Your task to perform on an android device: turn off sleep mode Image 0: 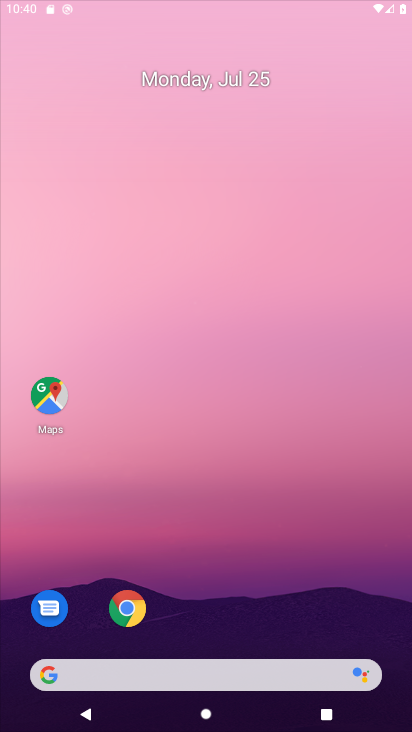
Step 0: drag from (239, 169) to (239, 84)
Your task to perform on an android device: turn off sleep mode Image 1: 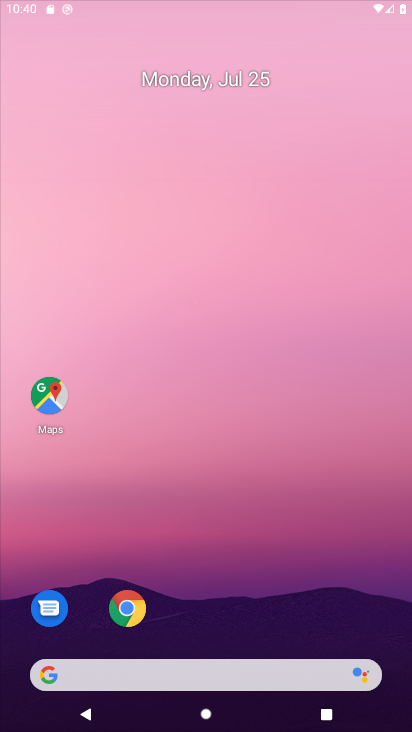
Step 1: drag from (300, 514) to (276, 162)
Your task to perform on an android device: turn off sleep mode Image 2: 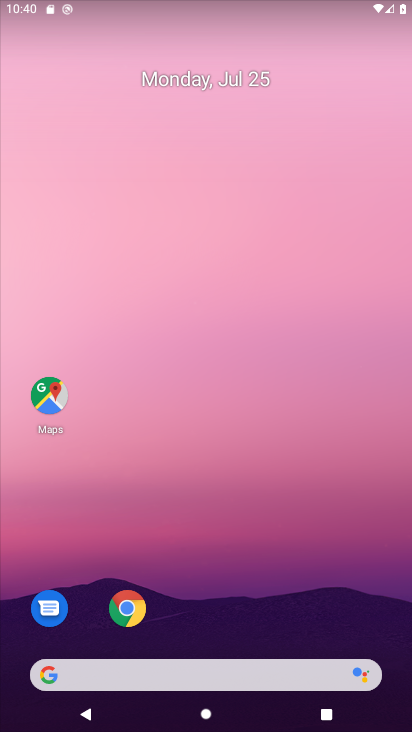
Step 2: drag from (253, 675) to (148, 163)
Your task to perform on an android device: turn off sleep mode Image 3: 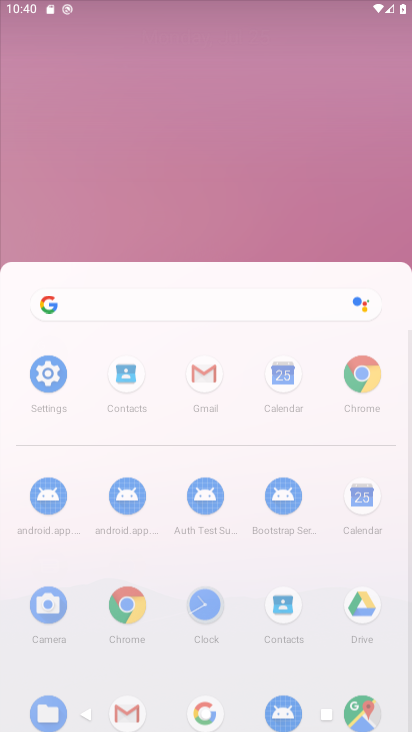
Step 3: drag from (311, 500) to (269, 176)
Your task to perform on an android device: turn off sleep mode Image 4: 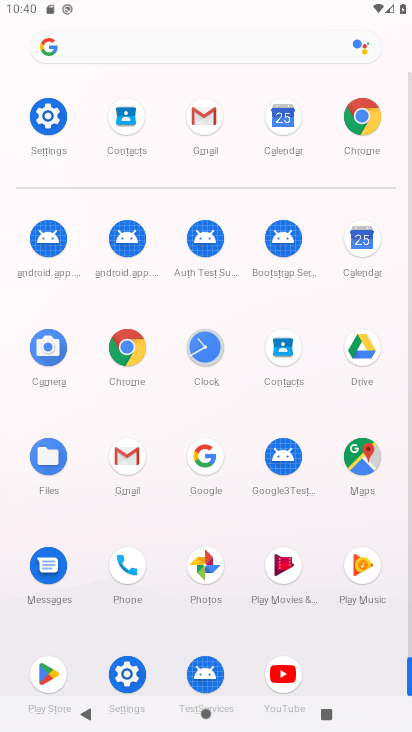
Step 4: click (40, 114)
Your task to perform on an android device: turn off sleep mode Image 5: 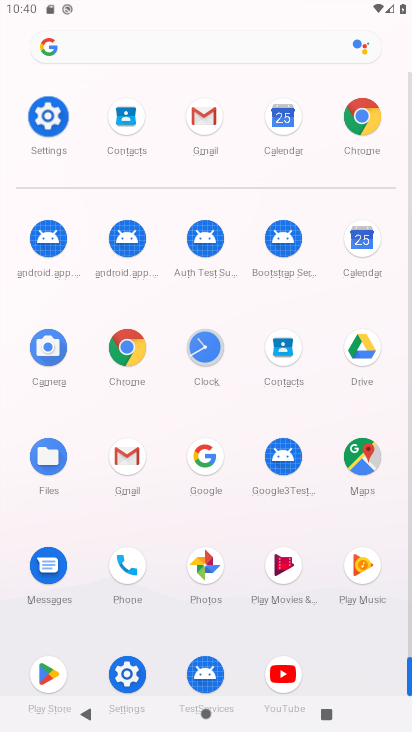
Step 5: click (40, 114)
Your task to perform on an android device: turn off sleep mode Image 6: 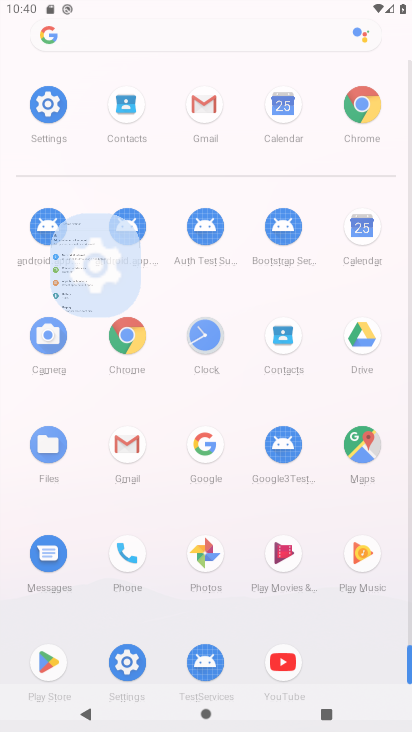
Step 6: click (40, 114)
Your task to perform on an android device: turn off sleep mode Image 7: 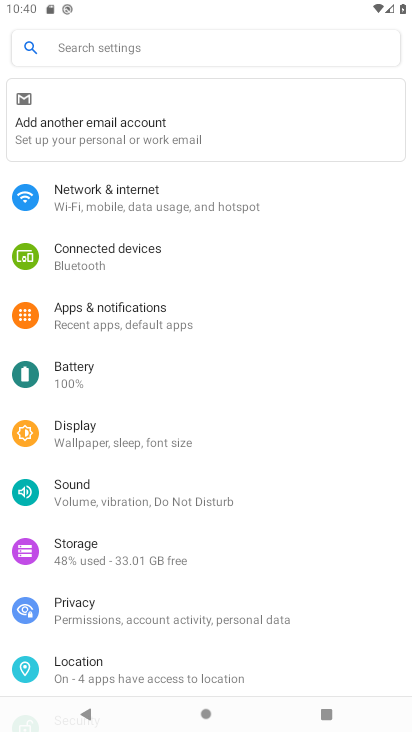
Step 7: click (72, 436)
Your task to perform on an android device: turn off sleep mode Image 8: 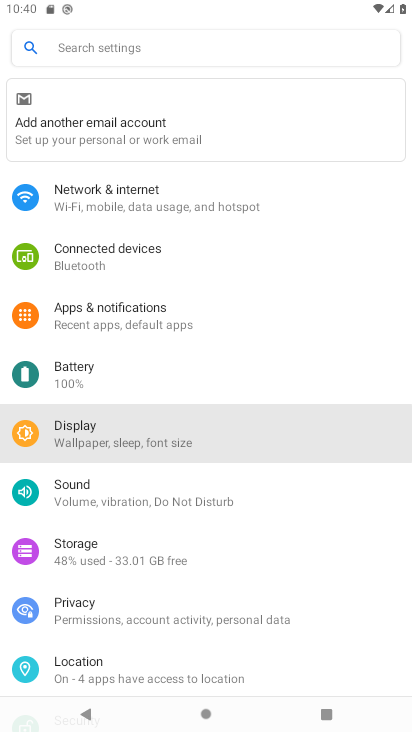
Step 8: click (72, 436)
Your task to perform on an android device: turn off sleep mode Image 9: 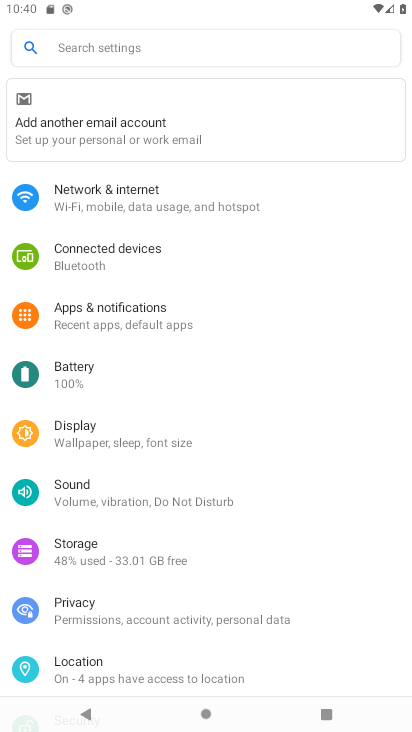
Step 9: click (73, 431)
Your task to perform on an android device: turn off sleep mode Image 10: 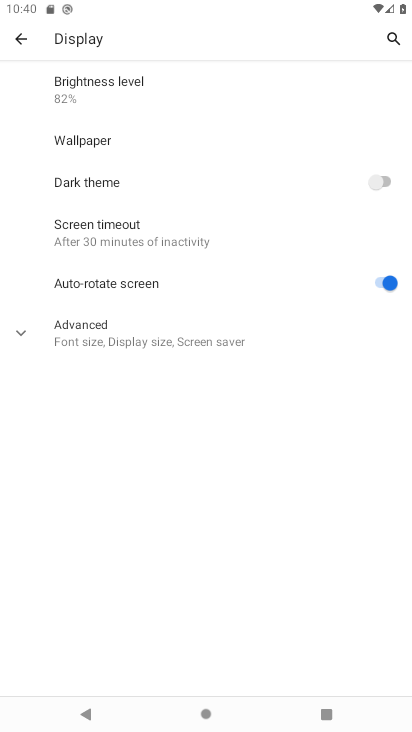
Step 10: click (91, 323)
Your task to perform on an android device: turn off sleep mode Image 11: 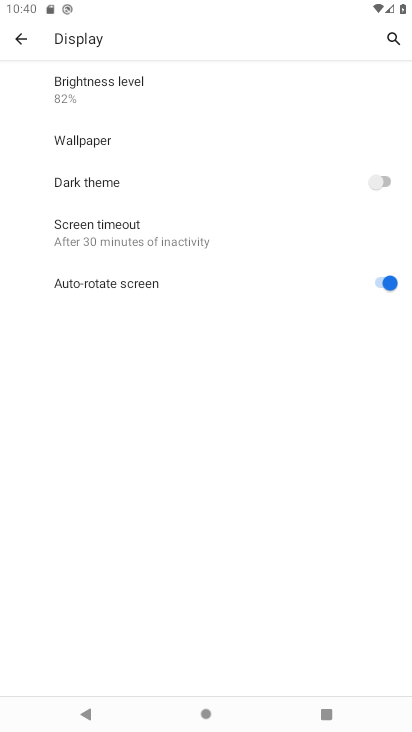
Step 11: click (90, 321)
Your task to perform on an android device: turn off sleep mode Image 12: 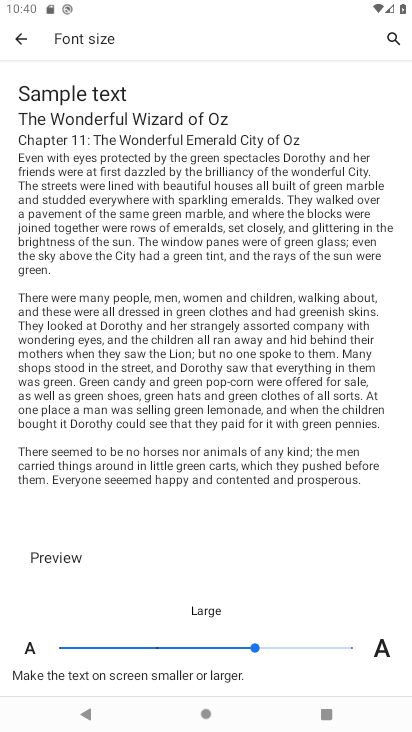
Step 12: click (343, 651)
Your task to perform on an android device: turn off sleep mode Image 13: 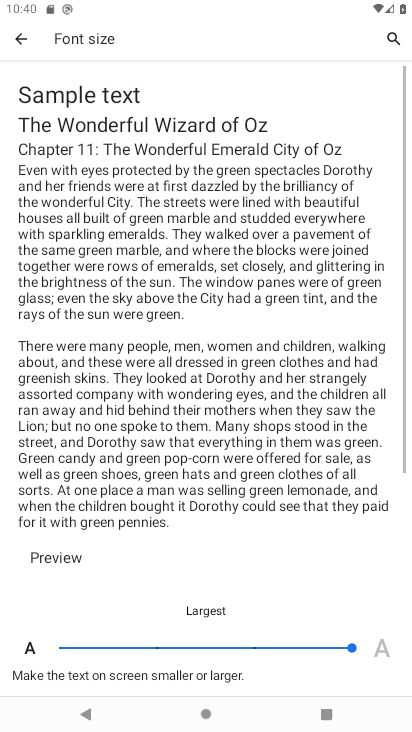
Step 13: click (10, 39)
Your task to perform on an android device: turn off sleep mode Image 14: 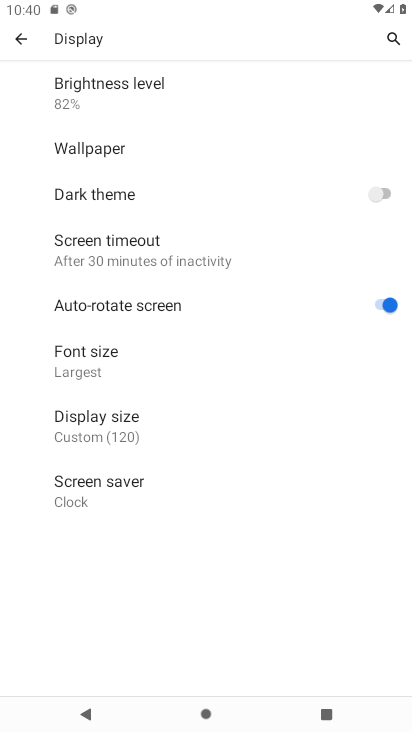
Step 14: click (94, 483)
Your task to perform on an android device: turn off sleep mode Image 15: 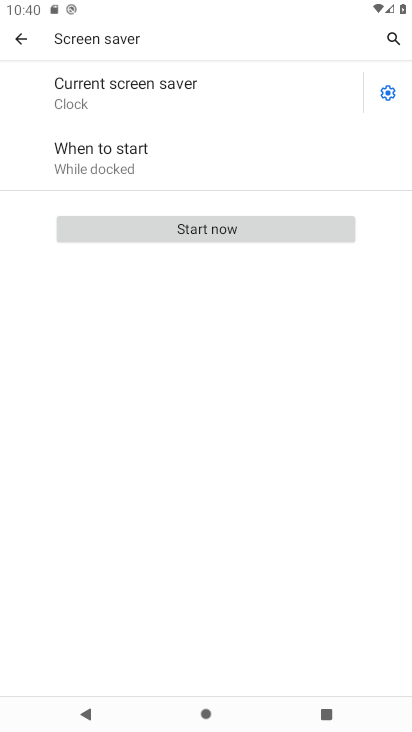
Step 15: click (18, 27)
Your task to perform on an android device: turn off sleep mode Image 16: 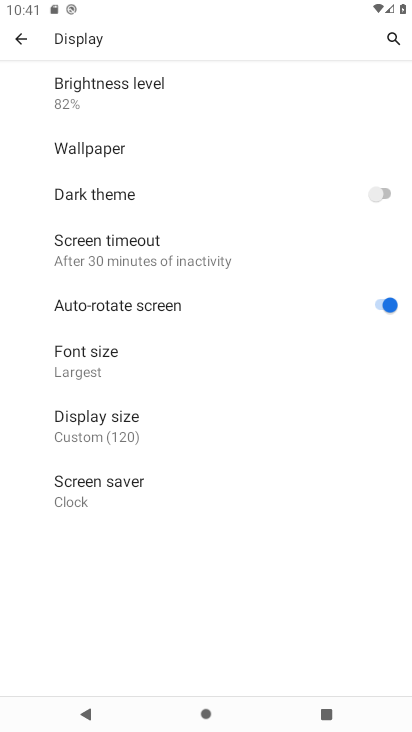
Step 16: click (102, 256)
Your task to perform on an android device: turn off sleep mode Image 17: 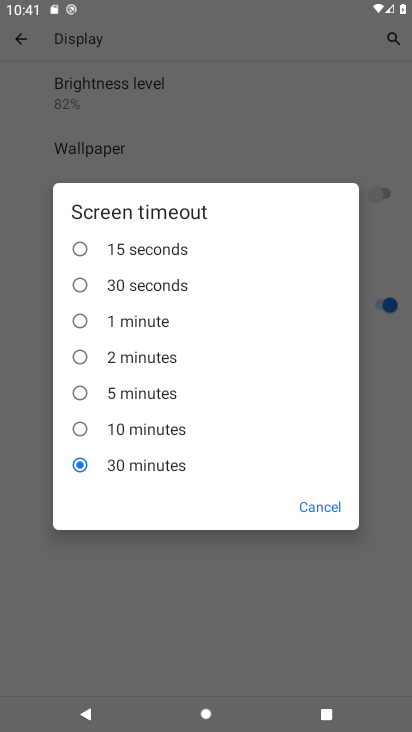
Step 17: task complete